Your task to perform on an android device: turn off sleep mode Image 0: 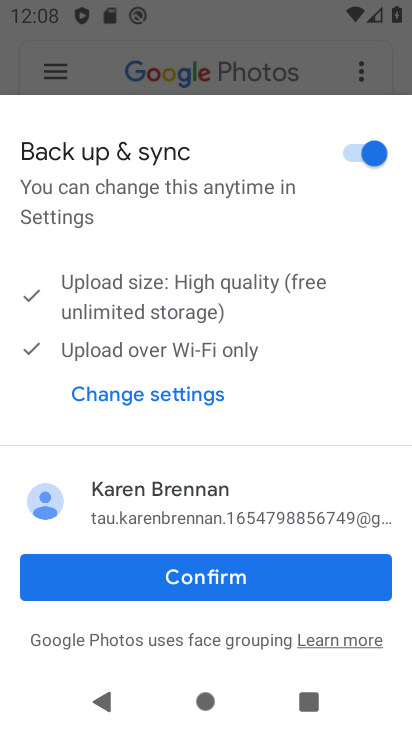
Step 0: press home button
Your task to perform on an android device: turn off sleep mode Image 1: 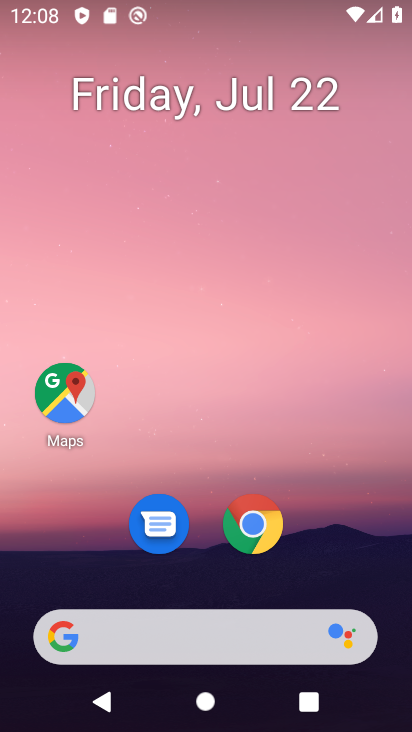
Step 1: drag from (219, 570) to (328, 181)
Your task to perform on an android device: turn off sleep mode Image 2: 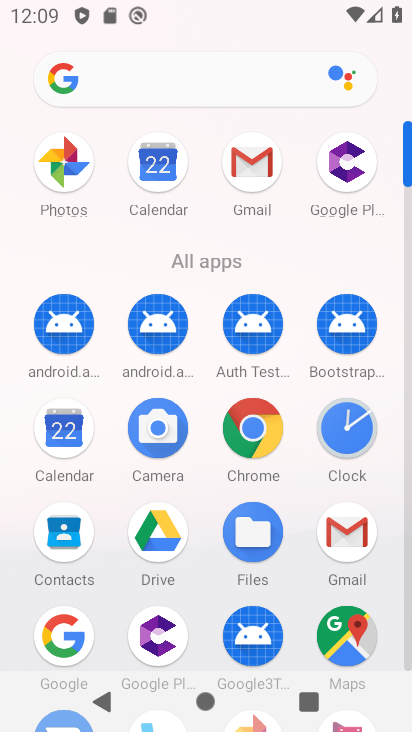
Step 2: drag from (208, 524) to (299, 90)
Your task to perform on an android device: turn off sleep mode Image 3: 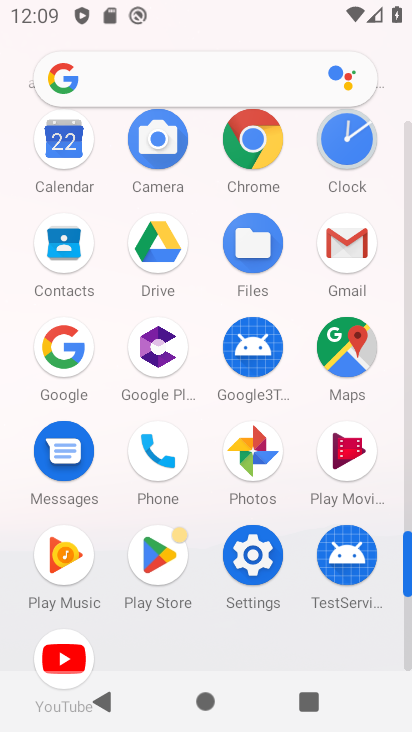
Step 3: click (256, 563)
Your task to perform on an android device: turn off sleep mode Image 4: 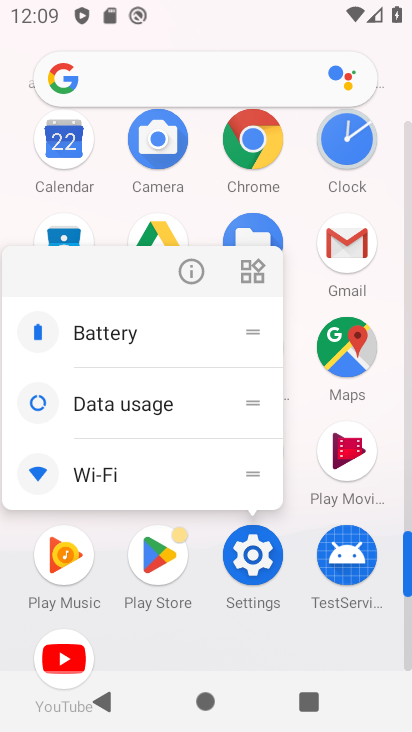
Step 4: click (247, 563)
Your task to perform on an android device: turn off sleep mode Image 5: 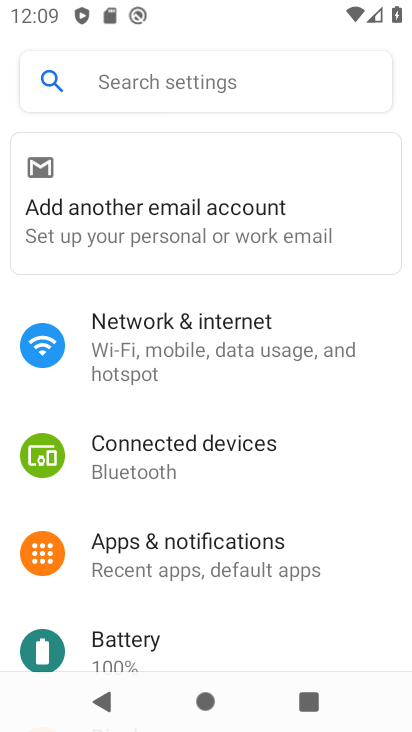
Step 5: drag from (240, 599) to (305, 251)
Your task to perform on an android device: turn off sleep mode Image 6: 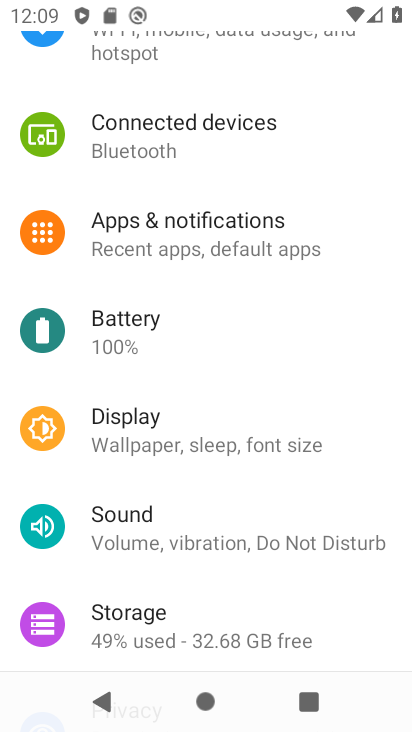
Step 6: click (193, 434)
Your task to perform on an android device: turn off sleep mode Image 7: 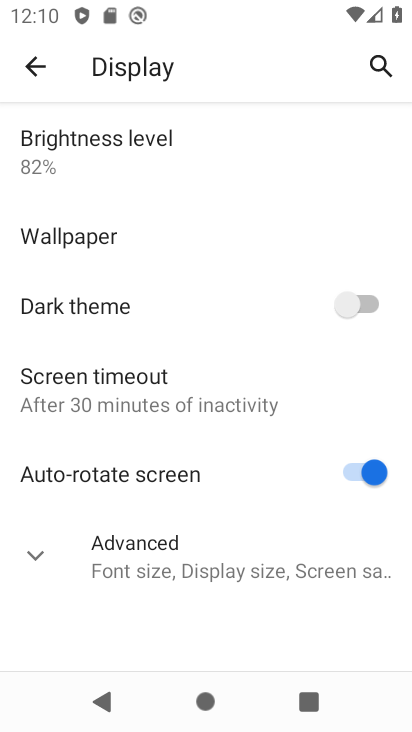
Step 7: task complete